Your task to perform on an android device: turn off airplane mode Image 0: 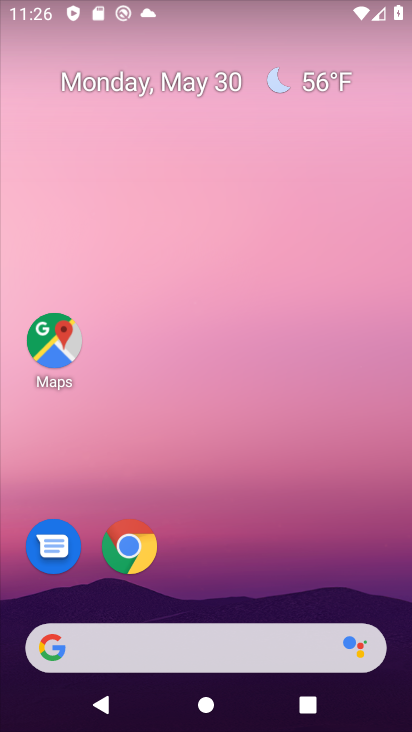
Step 0: drag from (267, 568) to (211, 214)
Your task to perform on an android device: turn off airplane mode Image 1: 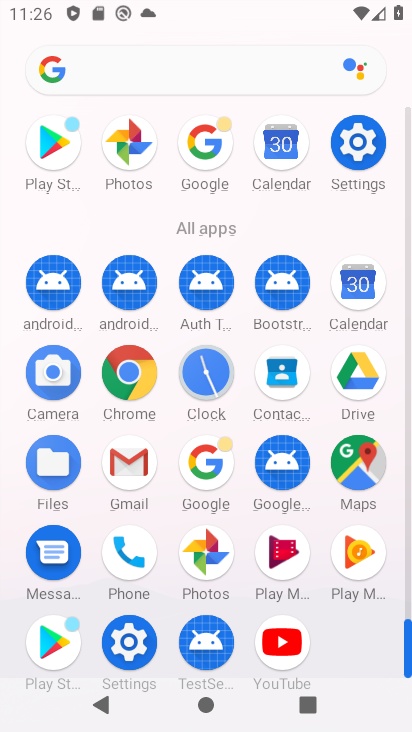
Step 1: click (360, 141)
Your task to perform on an android device: turn off airplane mode Image 2: 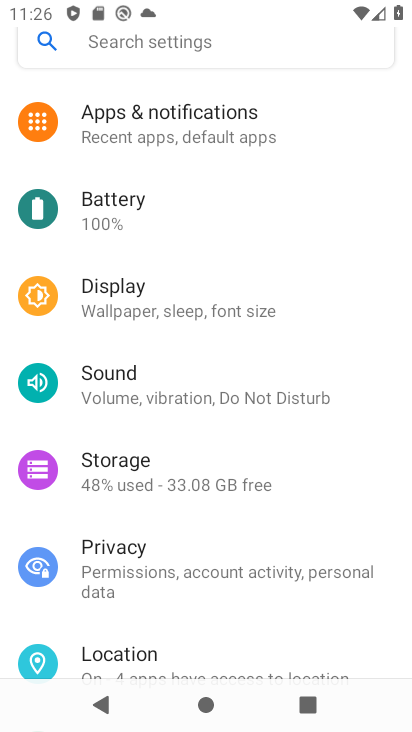
Step 2: drag from (246, 242) to (251, 367)
Your task to perform on an android device: turn off airplane mode Image 3: 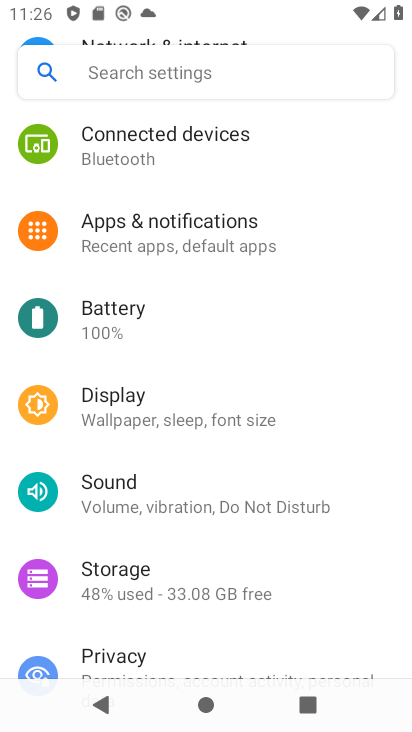
Step 3: drag from (181, 184) to (191, 406)
Your task to perform on an android device: turn off airplane mode Image 4: 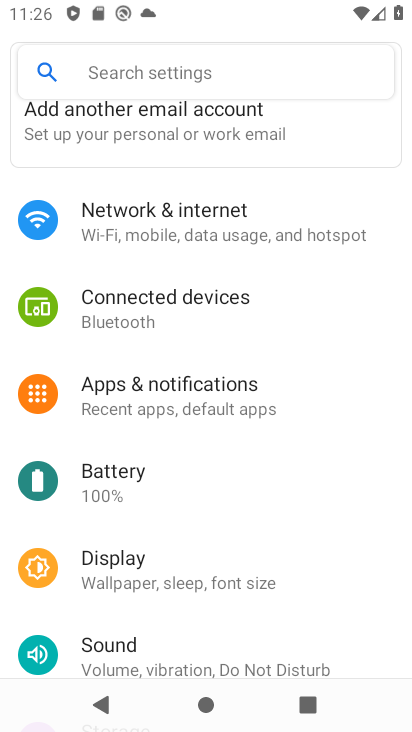
Step 4: click (165, 233)
Your task to perform on an android device: turn off airplane mode Image 5: 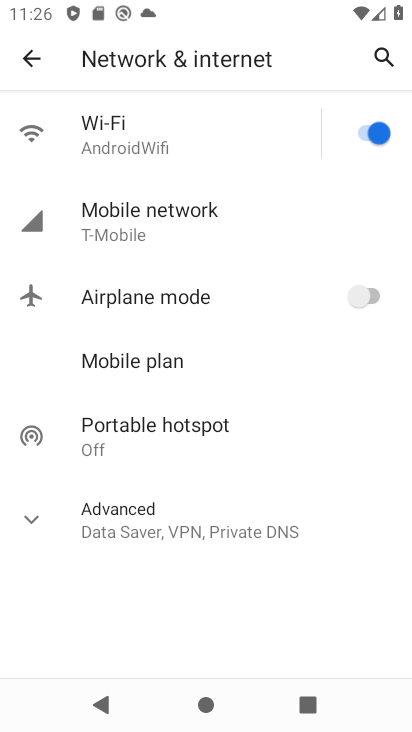
Step 5: task complete